Your task to perform on an android device: Go to accessibility settings Image 0: 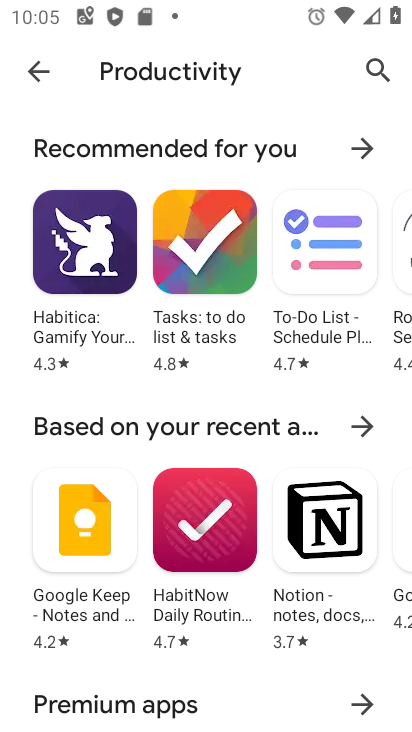
Step 0: press home button
Your task to perform on an android device: Go to accessibility settings Image 1: 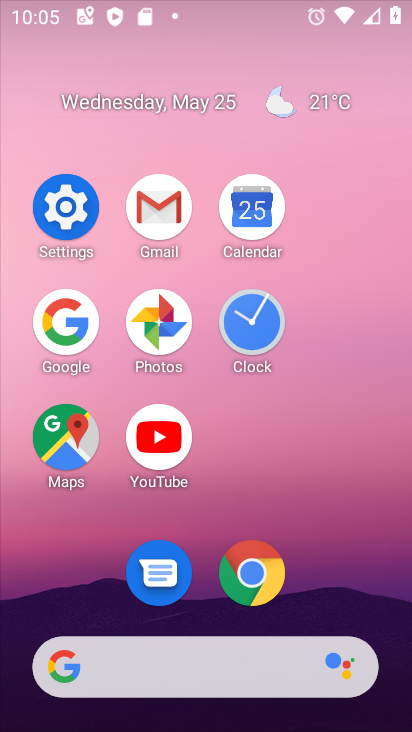
Step 1: click (100, 191)
Your task to perform on an android device: Go to accessibility settings Image 2: 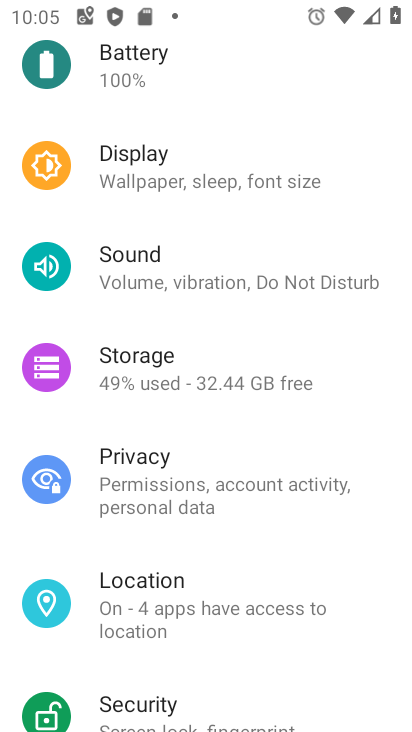
Step 2: drag from (268, 585) to (255, 170)
Your task to perform on an android device: Go to accessibility settings Image 3: 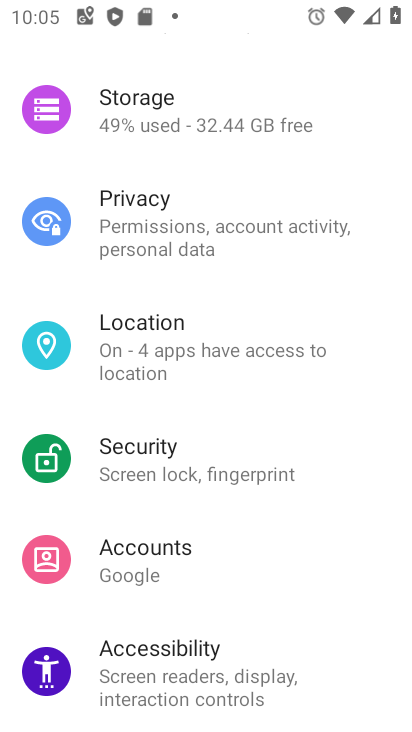
Step 3: click (200, 649)
Your task to perform on an android device: Go to accessibility settings Image 4: 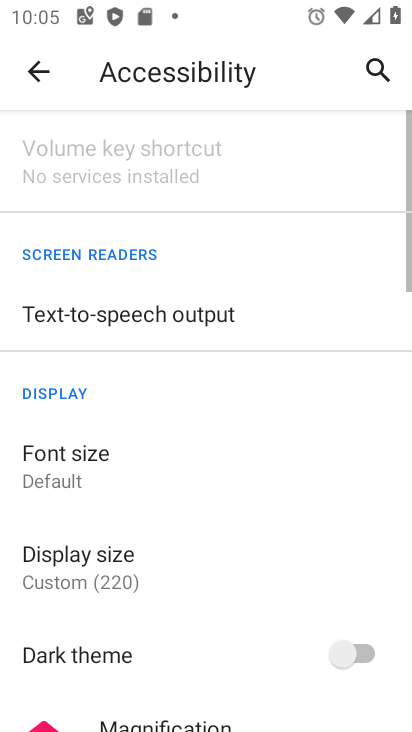
Step 4: task complete